Your task to perform on an android device: Go to display settings Image 0: 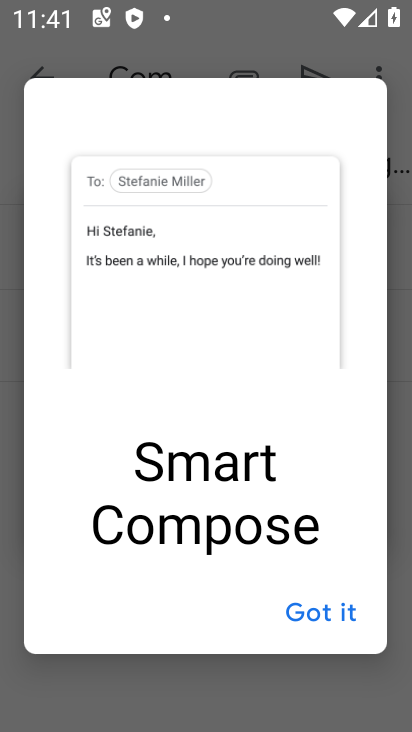
Step 0: press home button
Your task to perform on an android device: Go to display settings Image 1: 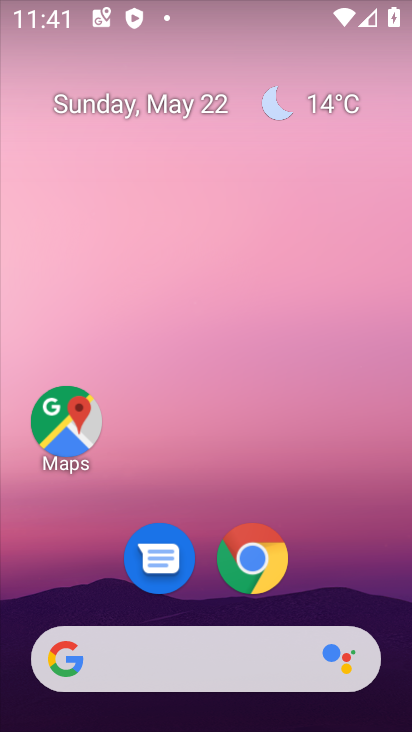
Step 1: drag from (342, 496) to (354, 13)
Your task to perform on an android device: Go to display settings Image 2: 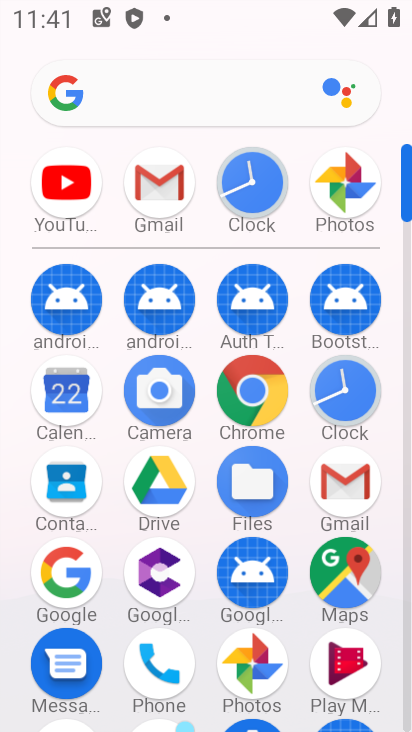
Step 2: click (408, 484)
Your task to perform on an android device: Go to display settings Image 3: 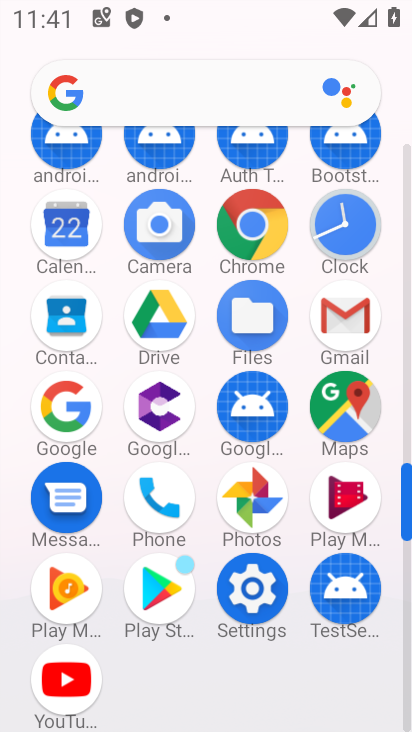
Step 3: click (253, 593)
Your task to perform on an android device: Go to display settings Image 4: 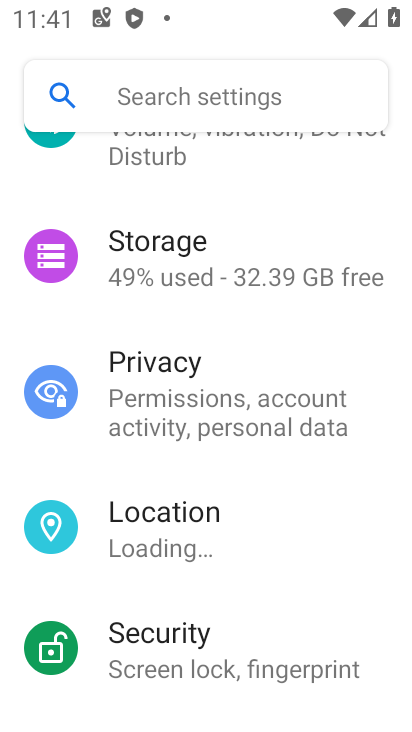
Step 4: drag from (287, 431) to (274, 660)
Your task to perform on an android device: Go to display settings Image 5: 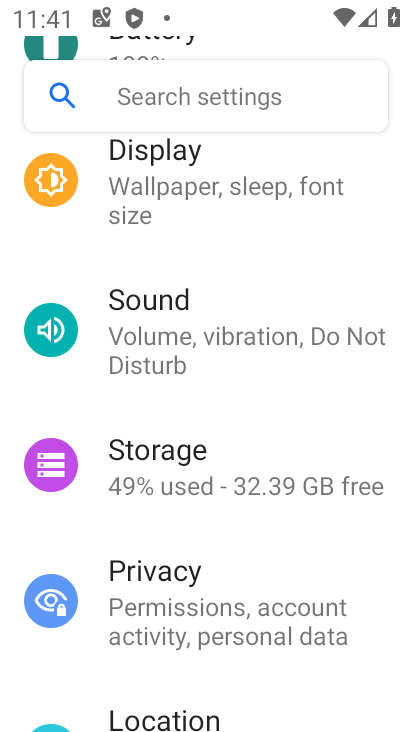
Step 5: click (161, 194)
Your task to perform on an android device: Go to display settings Image 6: 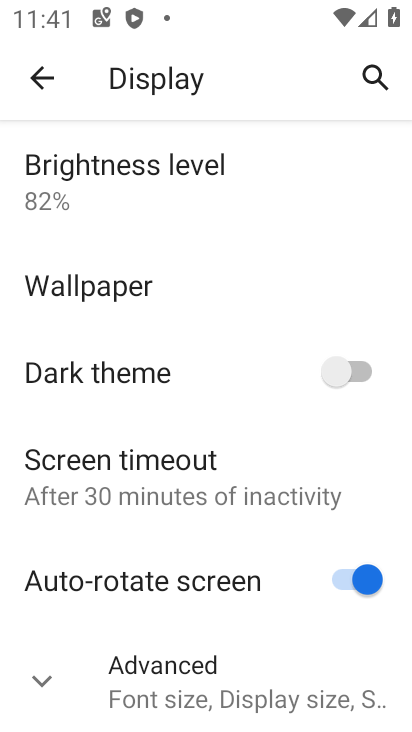
Step 6: task complete